Your task to perform on an android device: move a message to another label in the gmail app Image 0: 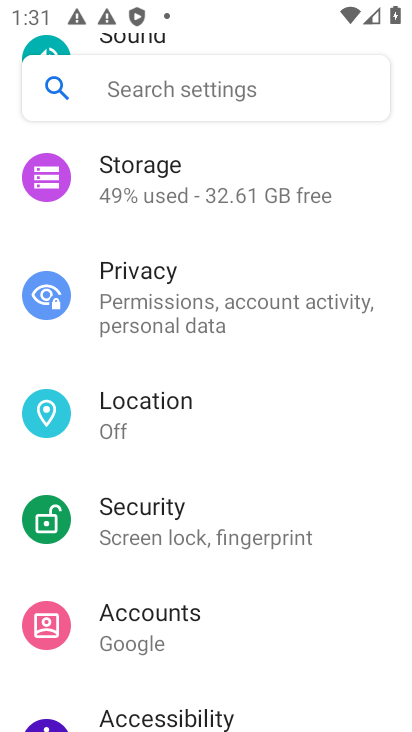
Step 0: press home button
Your task to perform on an android device: move a message to another label in the gmail app Image 1: 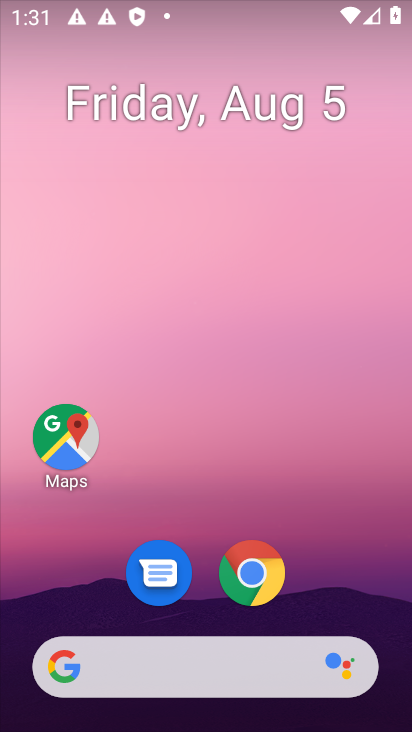
Step 1: drag from (332, 603) to (339, 190)
Your task to perform on an android device: move a message to another label in the gmail app Image 2: 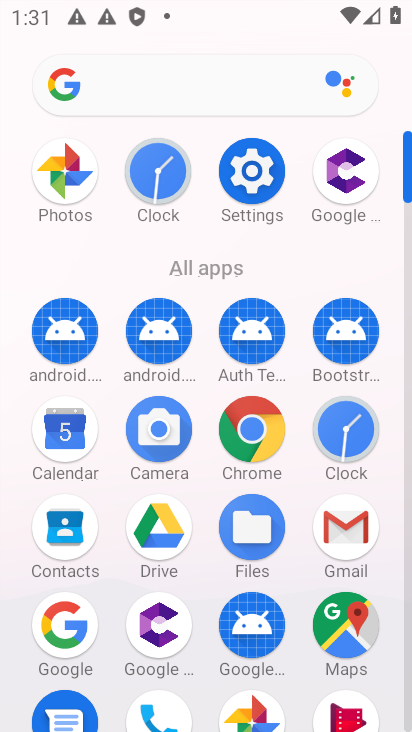
Step 2: click (340, 528)
Your task to perform on an android device: move a message to another label in the gmail app Image 3: 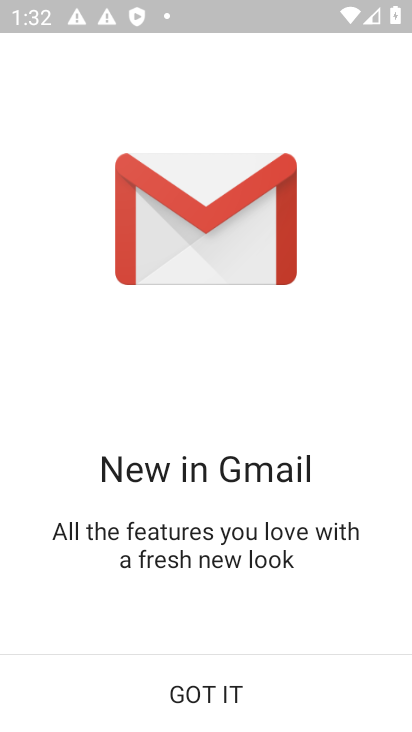
Step 3: click (221, 684)
Your task to perform on an android device: move a message to another label in the gmail app Image 4: 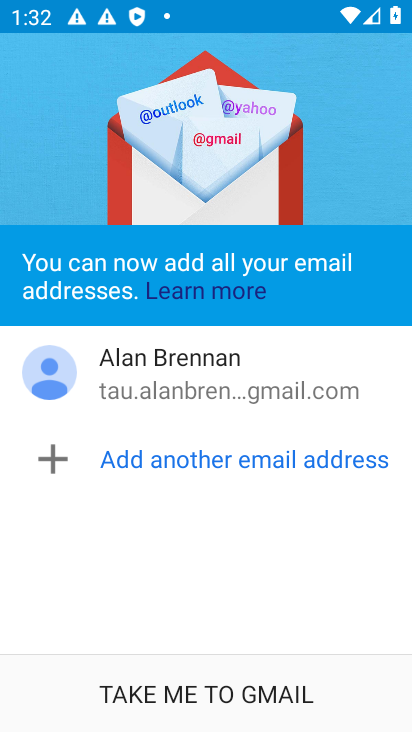
Step 4: click (221, 684)
Your task to perform on an android device: move a message to another label in the gmail app Image 5: 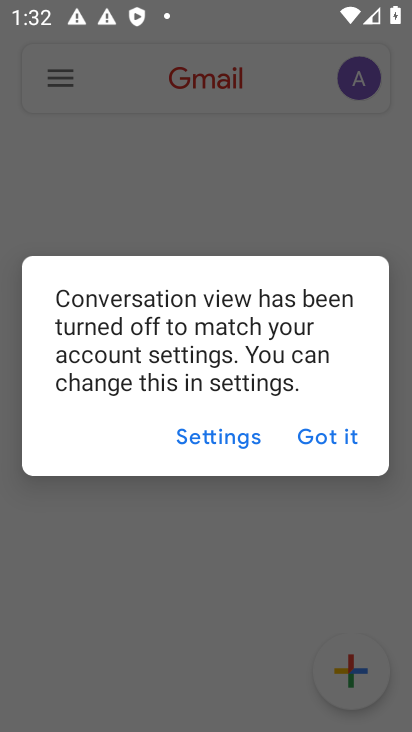
Step 5: click (339, 438)
Your task to perform on an android device: move a message to another label in the gmail app Image 6: 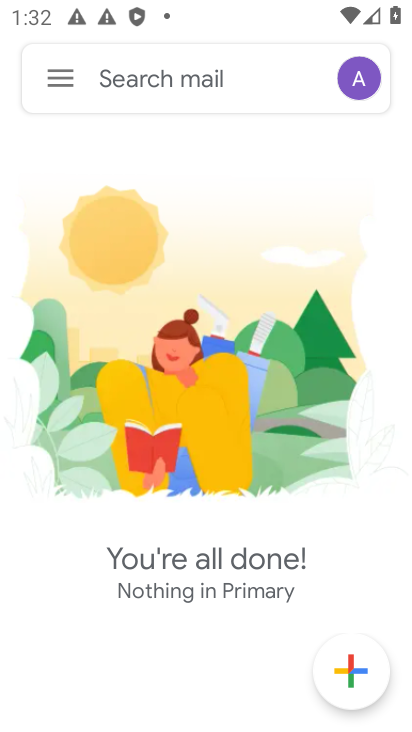
Step 6: task complete